Your task to perform on an android device: Open my contact list Image 0: 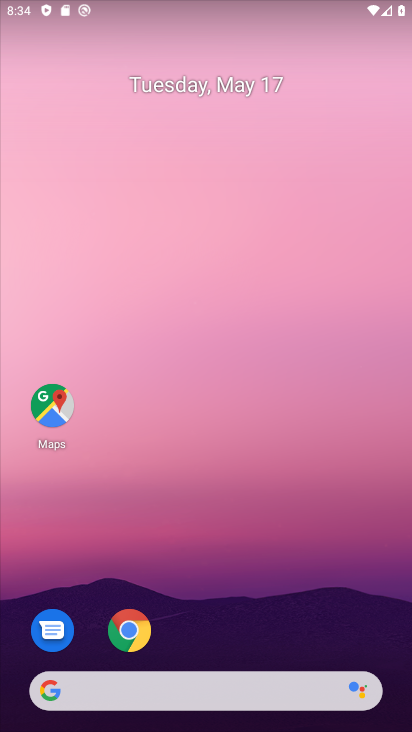
Step 0: drag from (187, 654) to (301, 178)
Your task to perform on an android device: Open my contact list Image 1: 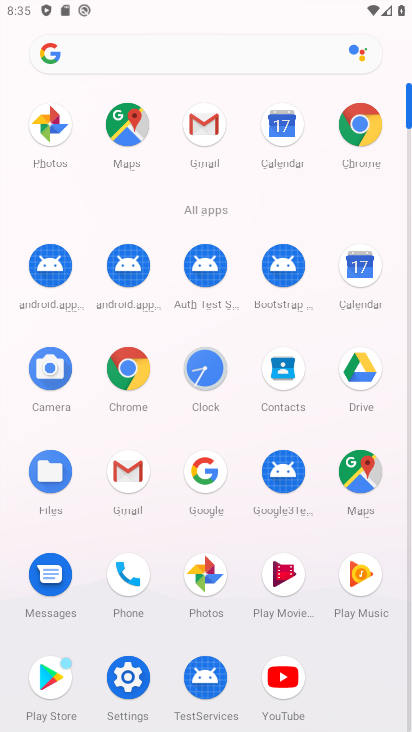
Step 1: click (287, 368)
Your task to perform on an android device: Open my contact list Image 2: 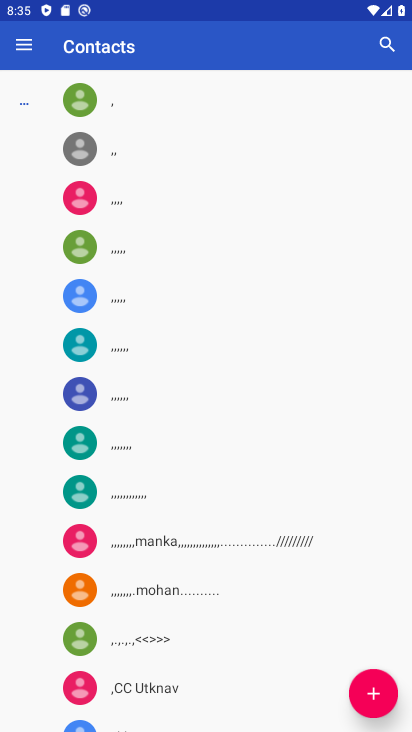
Step 2: task complete